Your task to perform on an android device: Show me popular videos on Youtube Image 0: 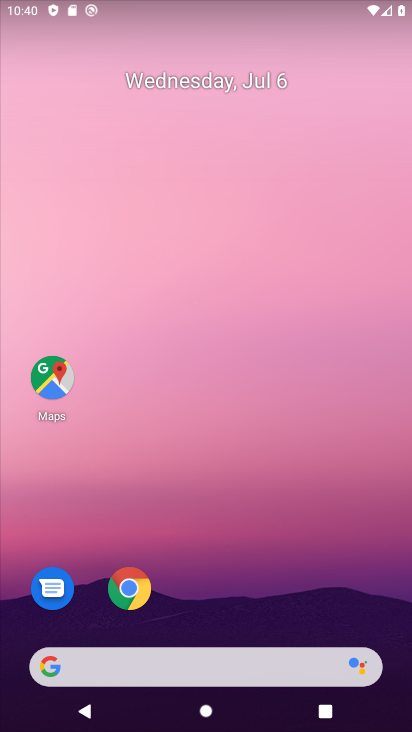
Step 0: drag from (309, 608) to (408, 412)
Your task to perform on an android device: Show me popular videos on Youtube Image 1: 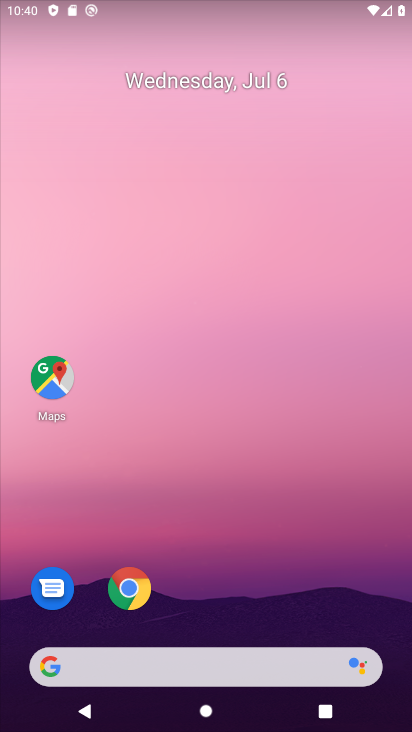
Step 1: drag from (248, 584) to (365, 19)
Your task to perform on an android device: Show me popular videos on Youtube Image 2: 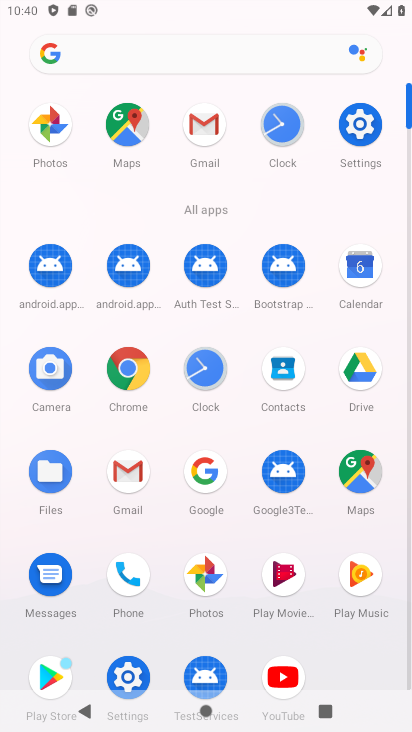
Step 2: click (287, 675)
Your task to perform on an android device: Show me popular videos on Youtube Image 3: 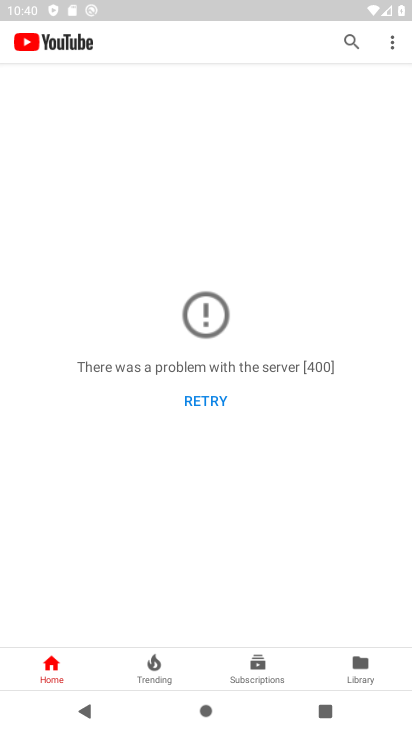
Step 3: press home button
Your task to perform on an android device: Show me popular videos on Youtube Image 4: 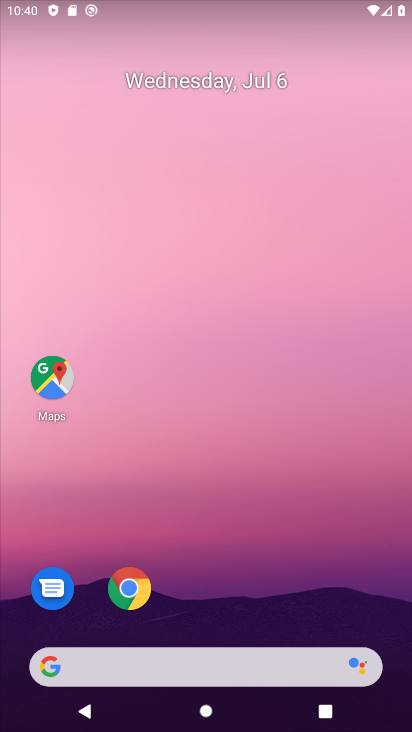
Step 4: drag from (244, 609) to (300, 55)
Your task to perform on an android device: Show me popular videos on Youtube Image 5: 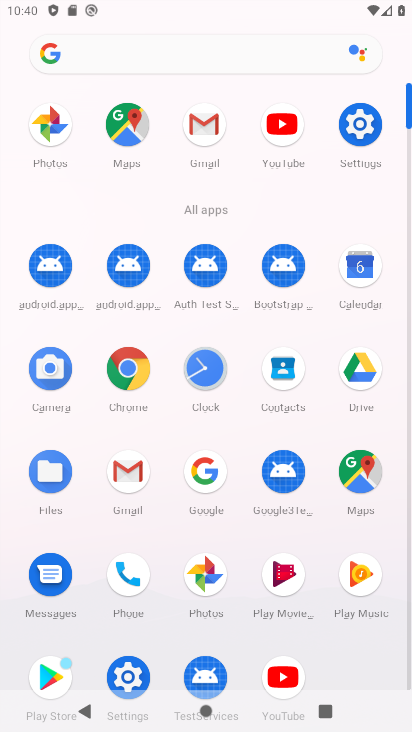
Step 5: click (277, 129)
Your task to perform on an android device: Show me popular videos on Youtube Image 6: 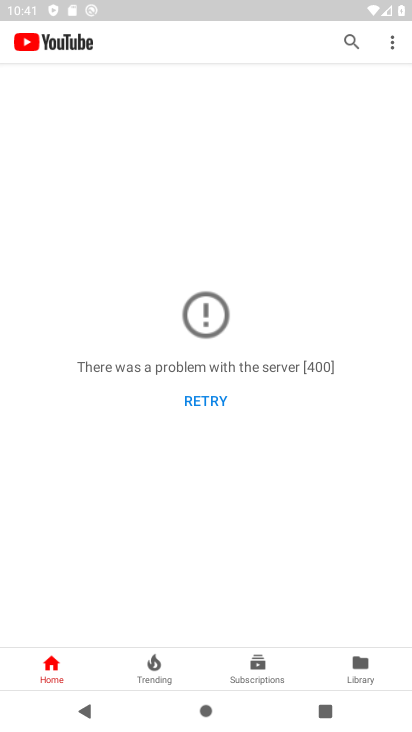
Step 6: click (351, 34)
Your task to perform on an android device: Show me popular videos on Youtube Image 7: 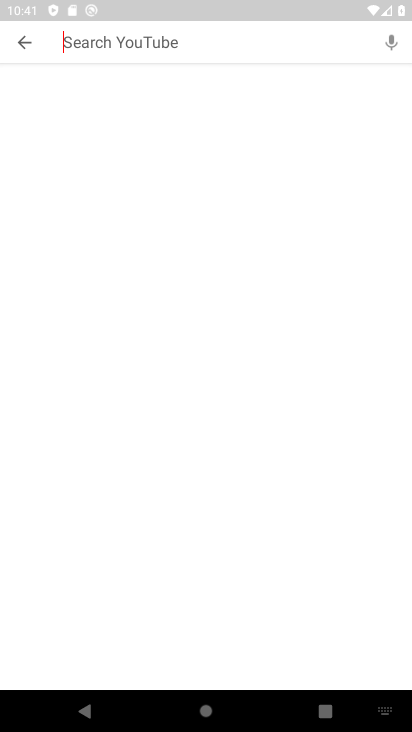
Step 7: type "popular videos "
Your task to perform on an android device: Show me popular videos on Youtube Image 8: 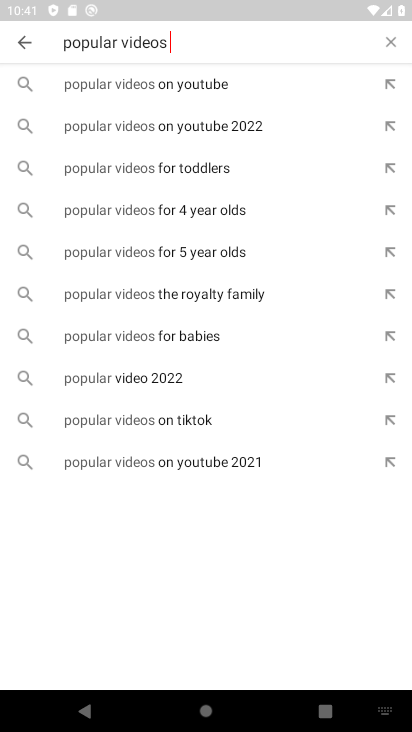
Step 8: click (122, 79)
Your task to perform on an android device: Show me popular videos on Youtube Image 9: 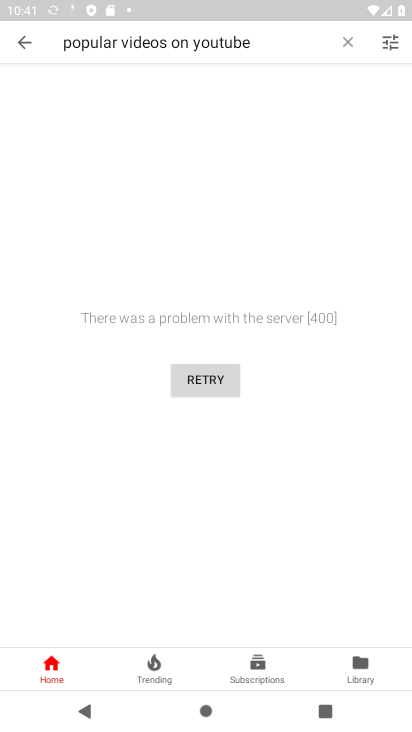
Step 9: task complete